Your task to perform on an android device: allow notifications from all sites in the chrome app Image 0: 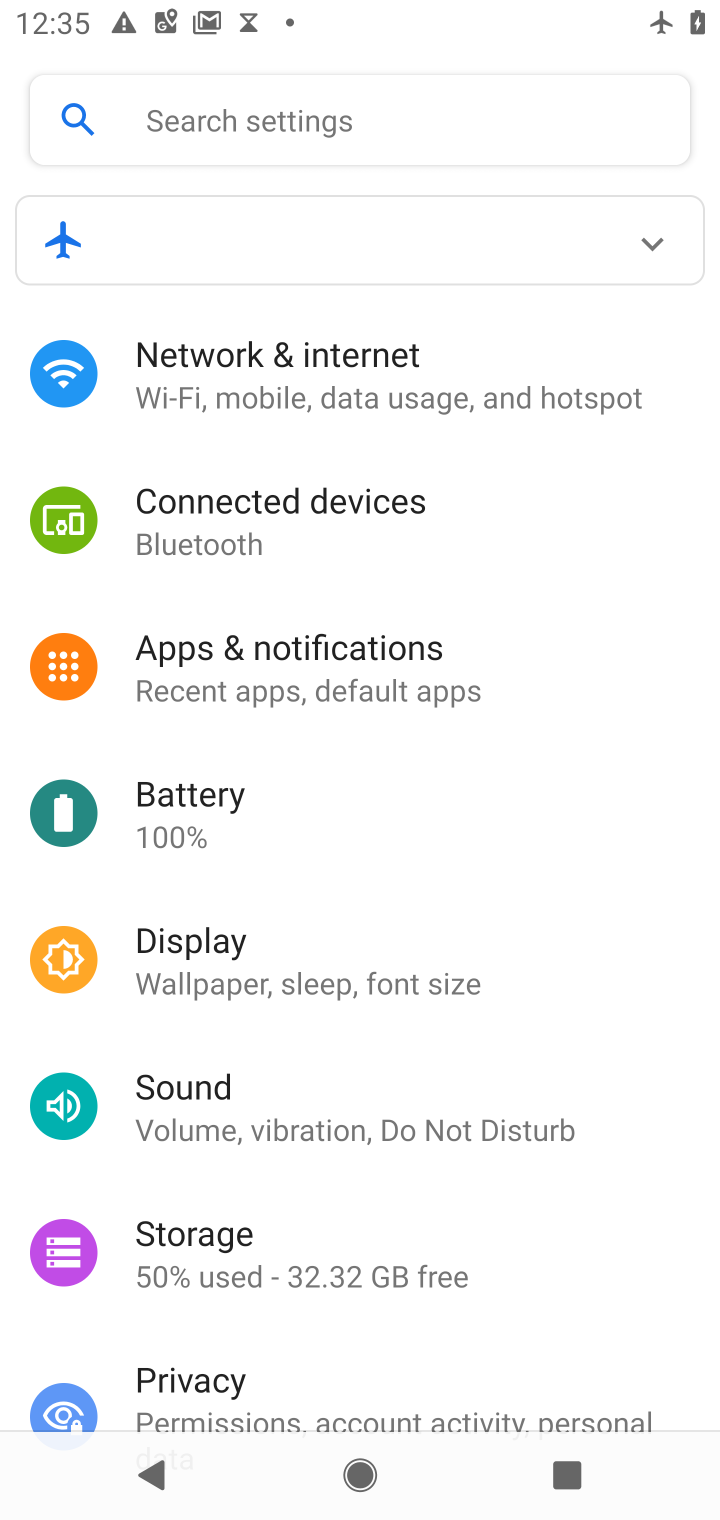
Step 0: press home button
Your task to perform on an android device: allow notifications from all sites in the chrome app Image 1: 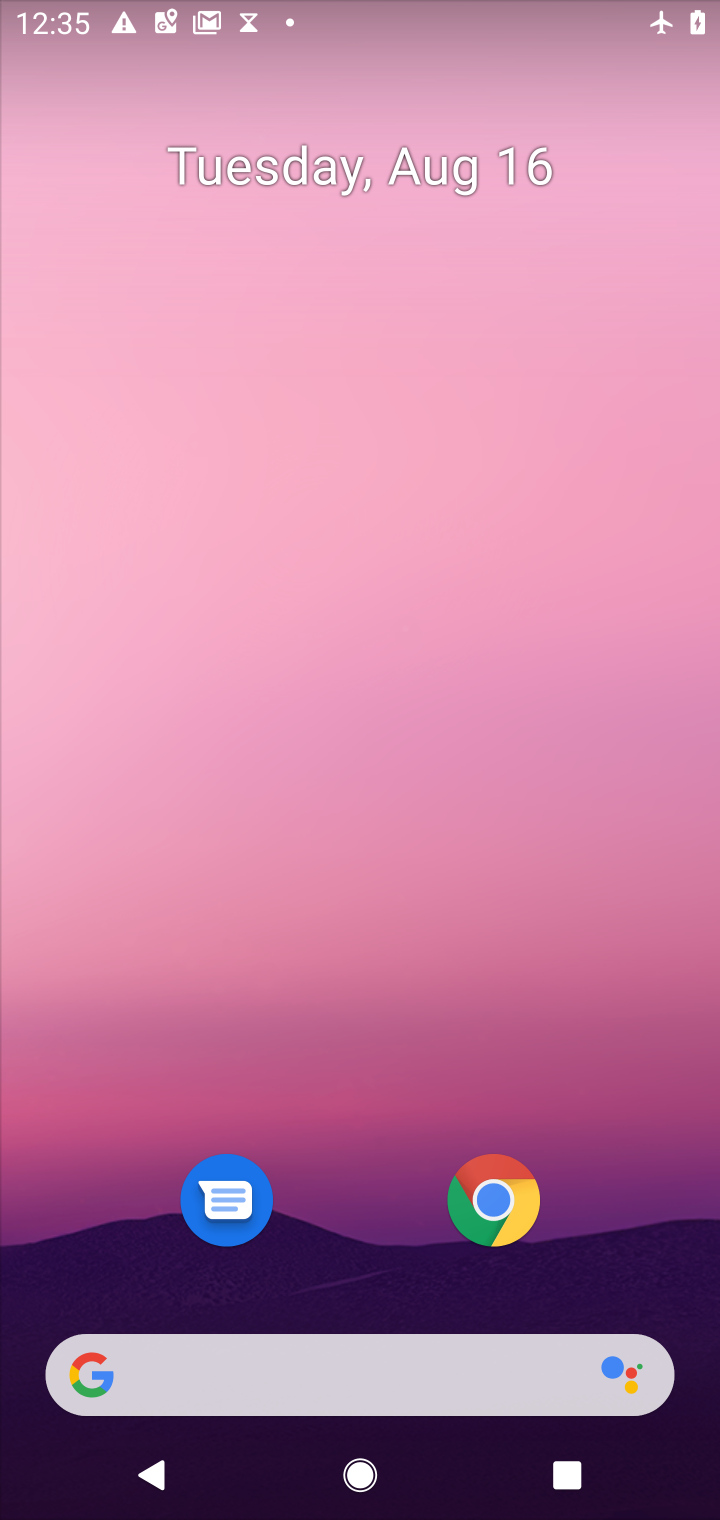
Step 1: click (484, 1190)
Your task to perform on an android device: allow notifications from all sites in the chrome app Image 2: 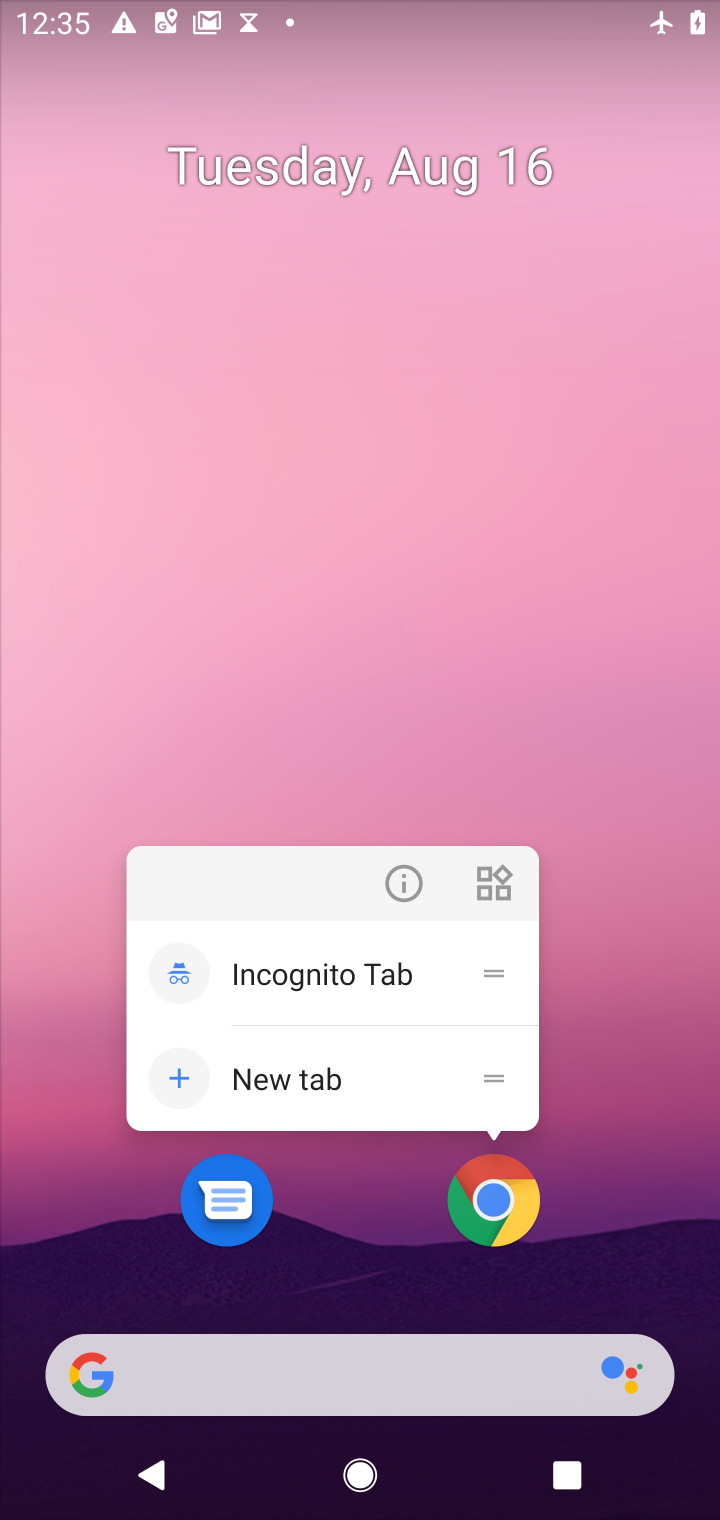
Step 2: click (484, 1190)
Your task to perform on an android device: allow notifications from all sites in the chrome app Image 3: 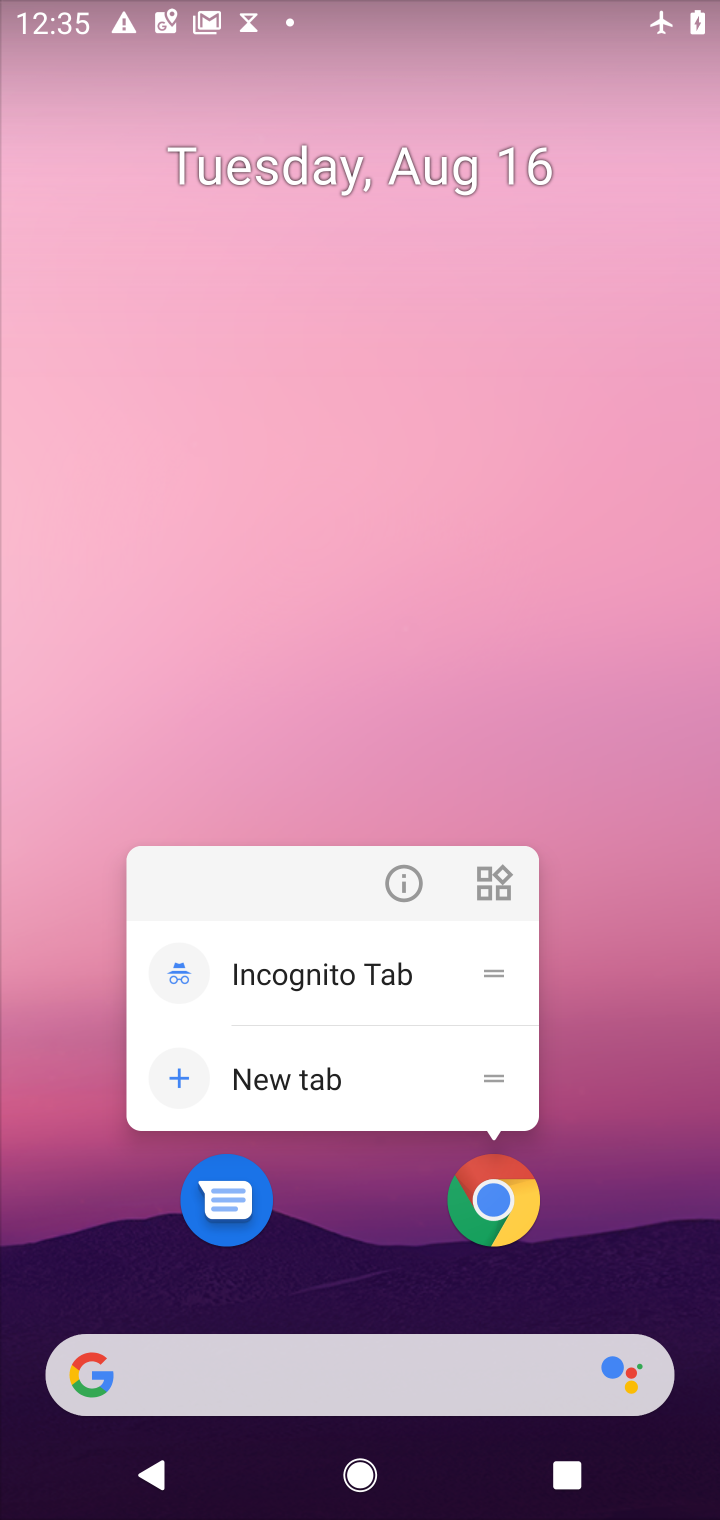
Step 3: click (484, 1190)
Your task to perform on an android device: allow notifications from all sites in the chrome app Image 4: 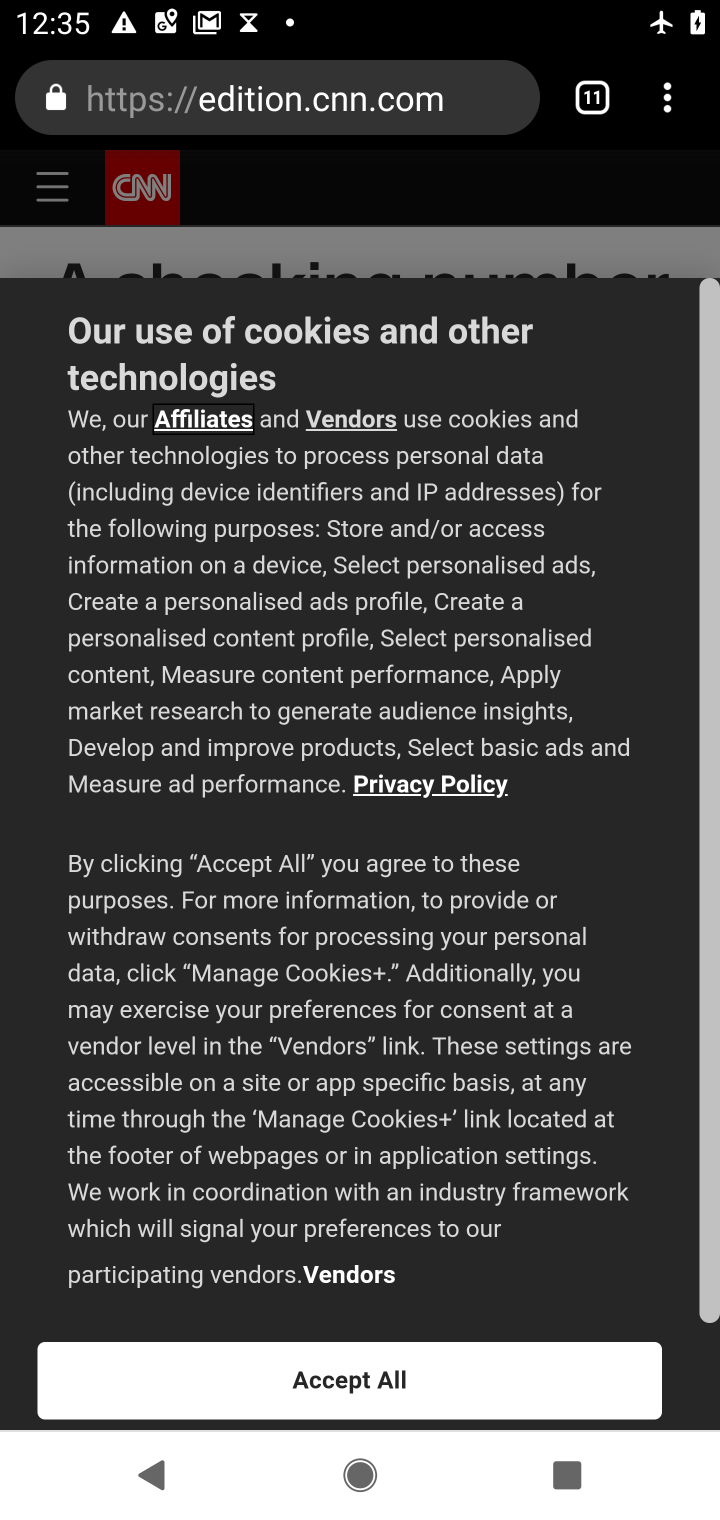
Step 4: click (671, 94)
Your task to perform on an android device: allow notifications from all sites in the chrome app Image 5: 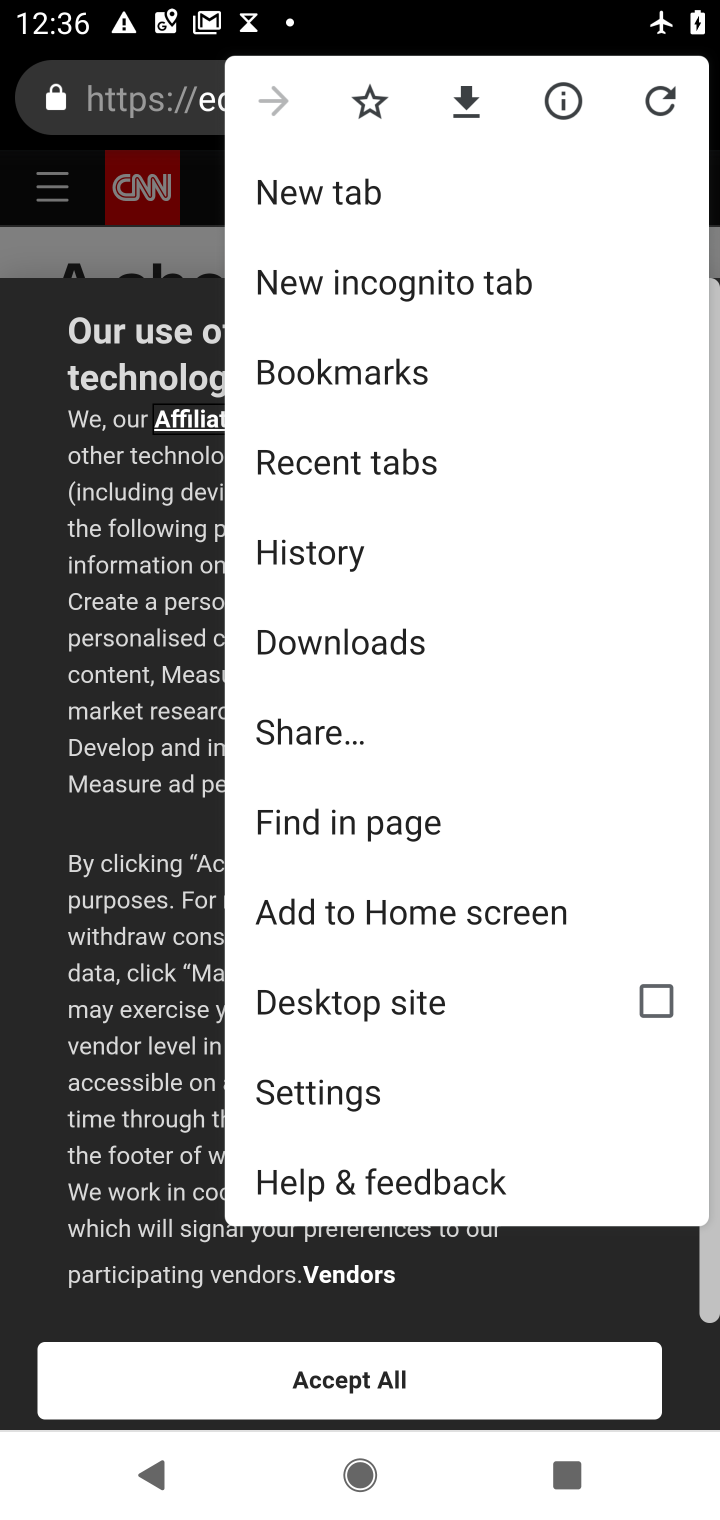
Step 5: click (324, 1087)
Your task to perform on an android device: allow notifications from all sites in the chrome app Image 6: 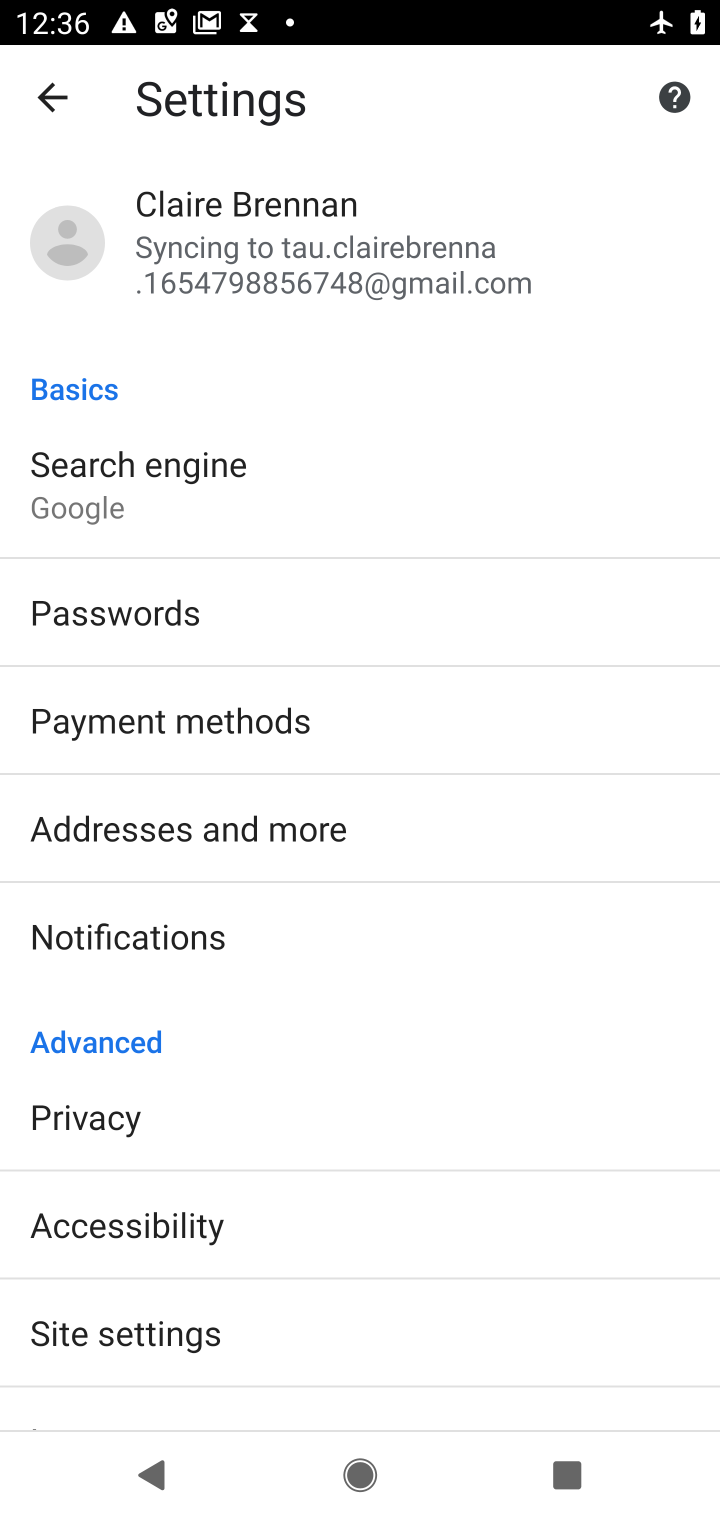
Step 6: click (208, 942)
Your task to perform on an android device: allow notifications from all sites in the chrome app Image 7: 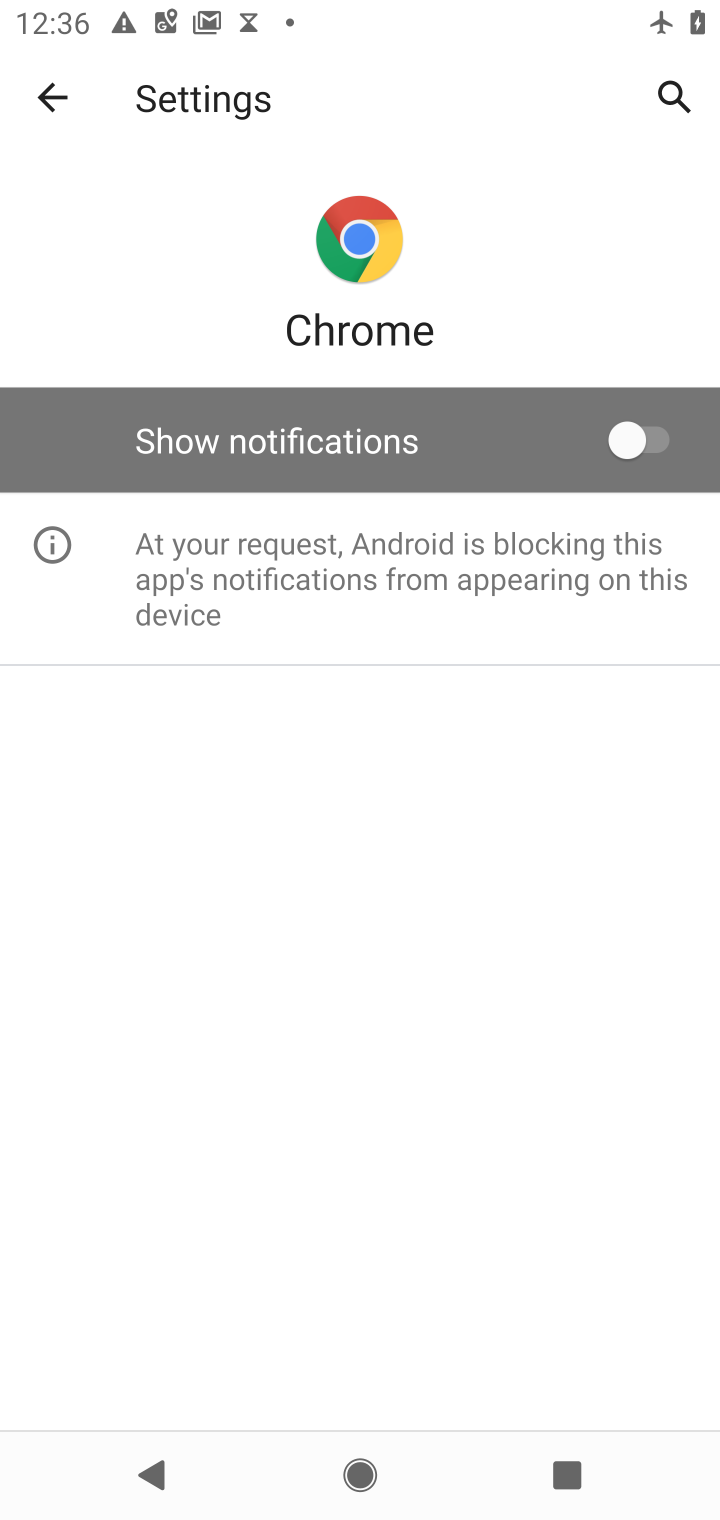
Step 7: click (643, 429)
Your task to perform on an android device: allow notifications from all sites in the chrome app Image 8: 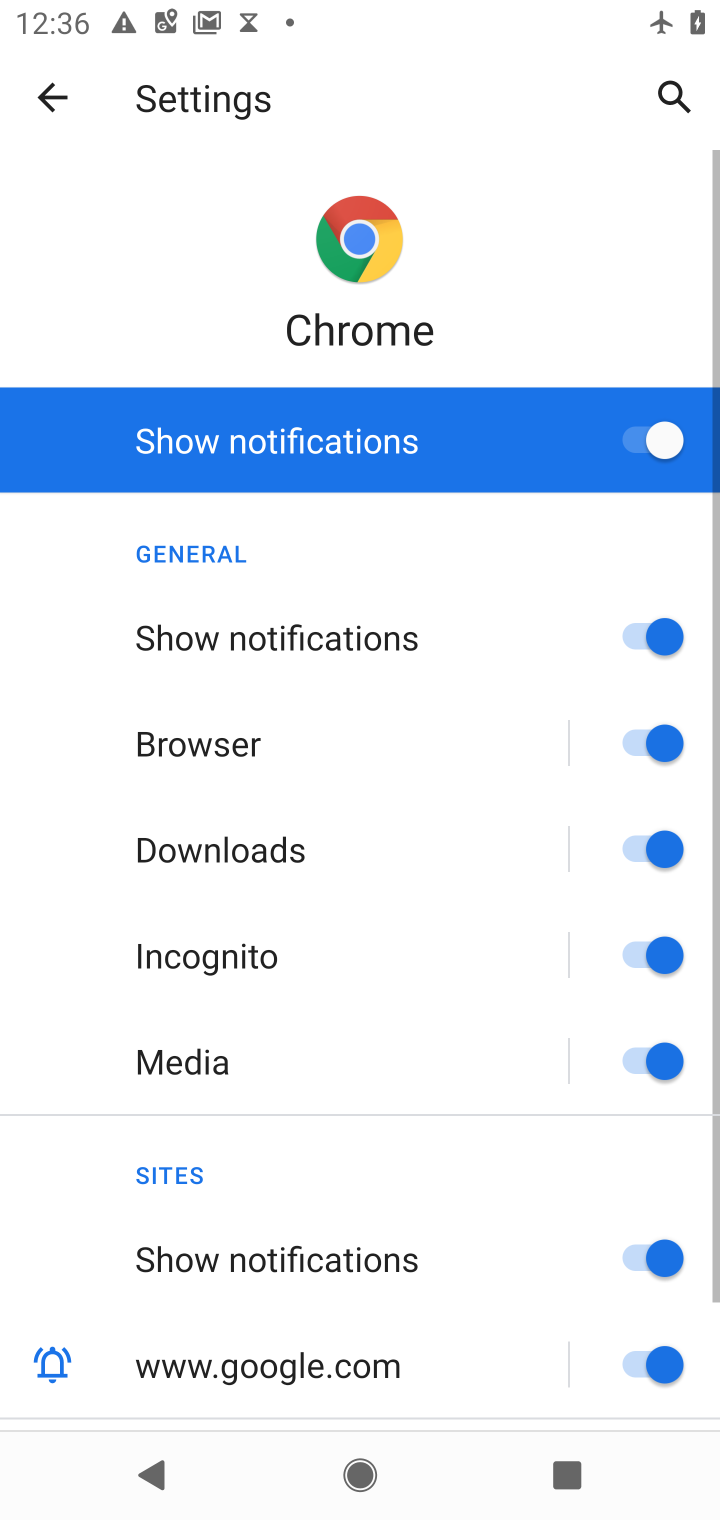
Step 8: task complete